Your task to perform on an android device: Open Google Image 0: 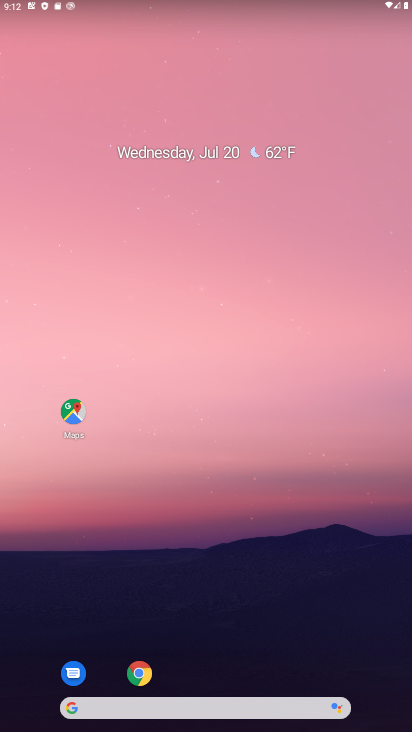
Step 0: drag from (374, 523) to (315, 68)
Your task to perform on an android device: Open Google Image 1: 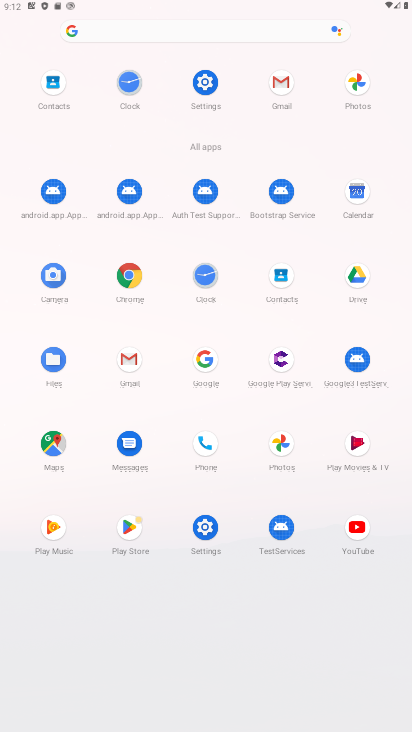
Step 1: click (207, 366)
Your task to perform on an android device: Open Google Image 2: 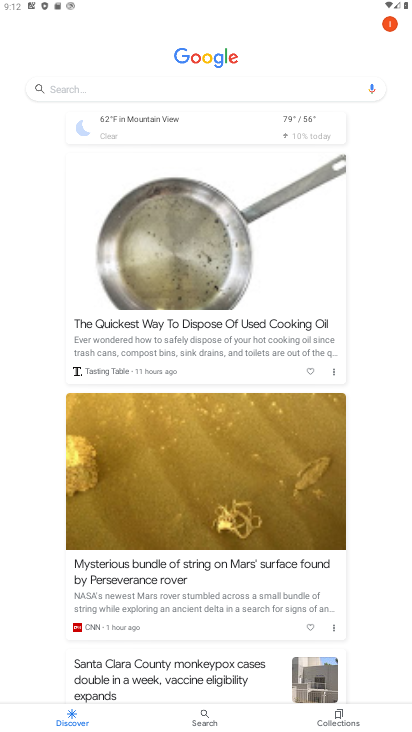
Step 2: task complete